Your task to perform on an android device: Open eBay Image 0: 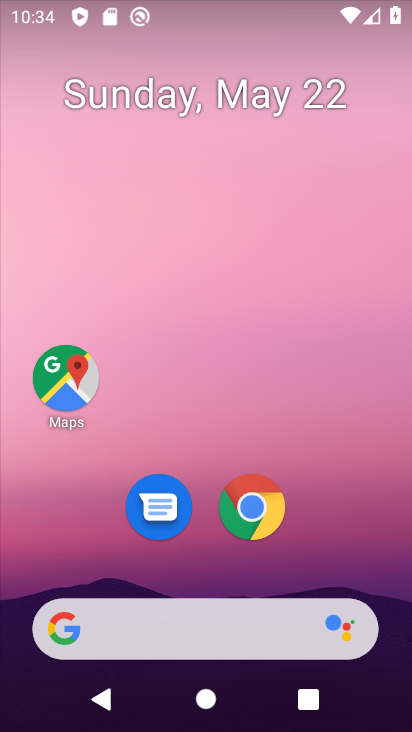
Step 0: click (252, 518)
Your task to perform on an android device: Open eBay Image 1: 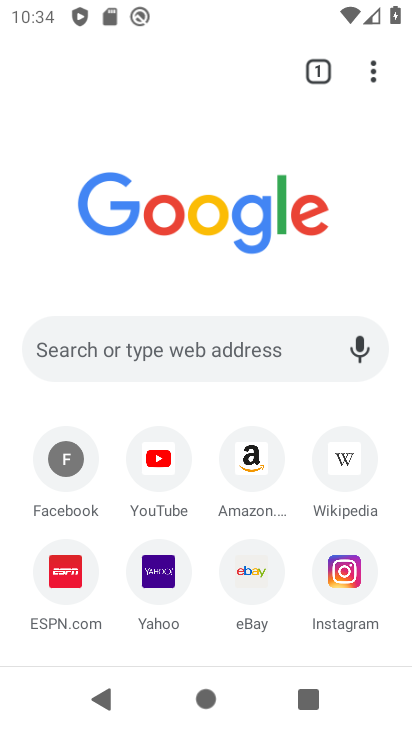
Step 1: click (256, 559)
Your task to perform on an android device: Open eBay Image 2: 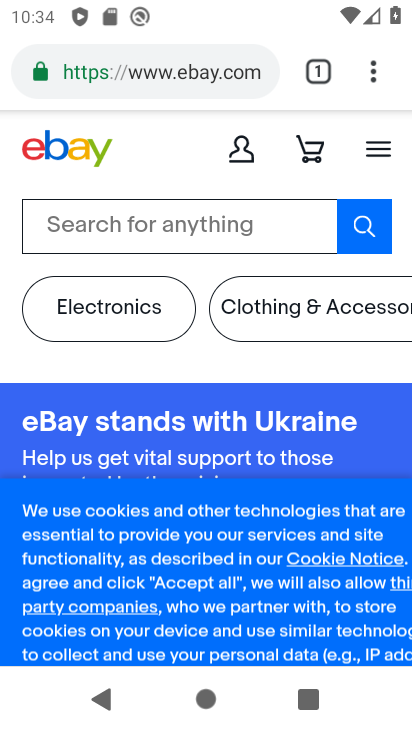
Step 2: task complete